Your task to perform on an android device: Open Chrome and go to settings Image 0: 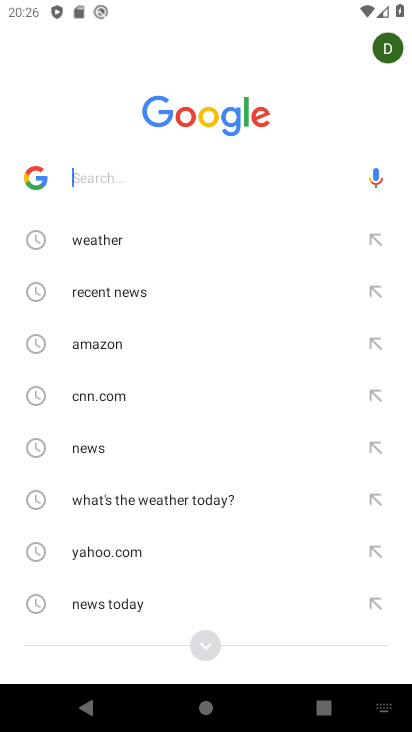
Step 0: press home button
Your task to perform on an android device: Open Chrome and go to settings Image 1: 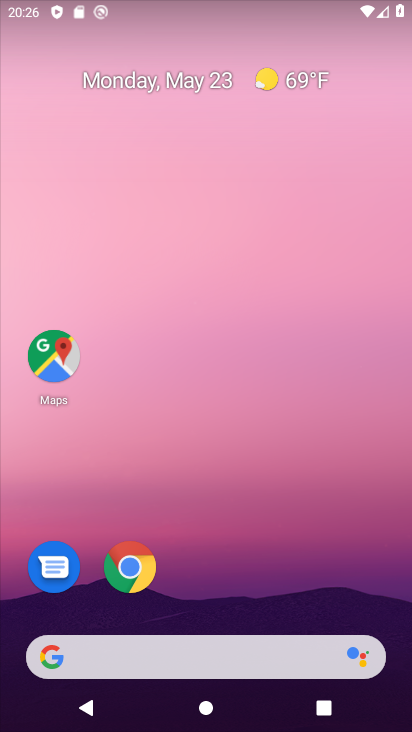
Step 1: click (131, 567)
Your task to perform on an android device: Open Chrome and go to settings Image 2: 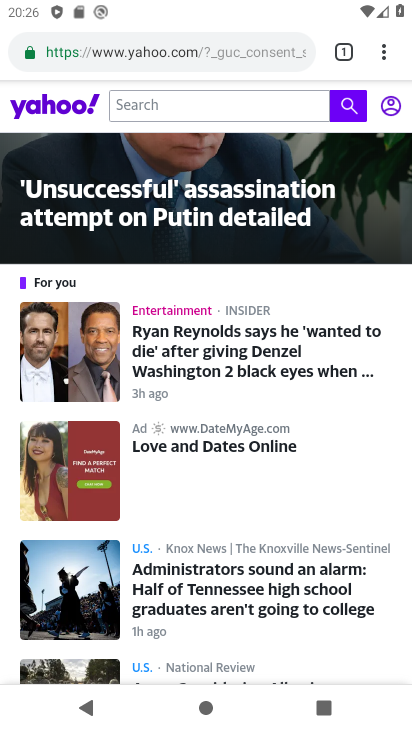
Step 2: click (383, 53)
Your task to perform on an android device: Open Chrome and go to settings Image 3: 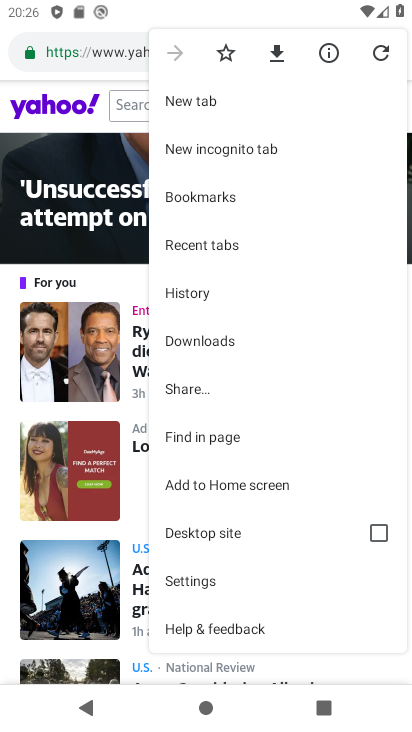
Step 3: click (197, 584)
Your task to perform on an android device: Open Chrome and go to settings Image 4: 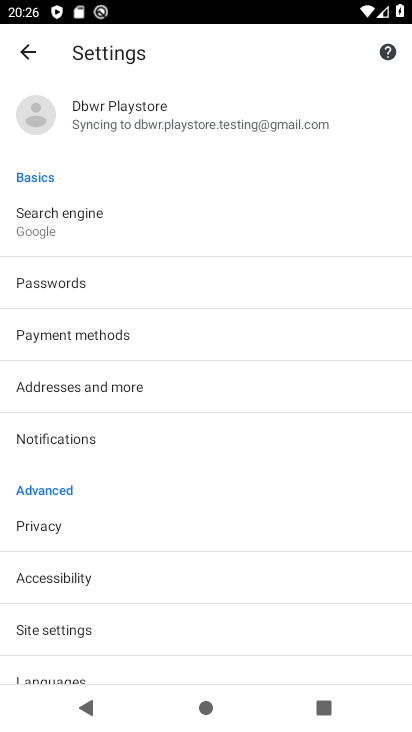
Step 4: task complete